Your task to perform on an android device: visit the assistant section in the google photos Image 0: 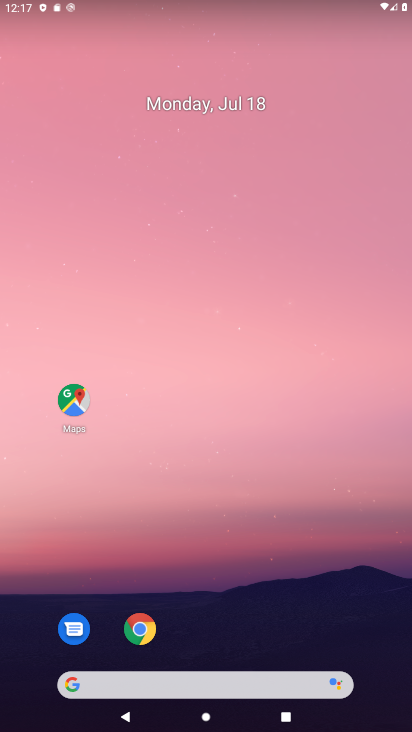
Step 0: press home button
Your task to perform on an android device: visit the assistant section in the google photos Image 1: 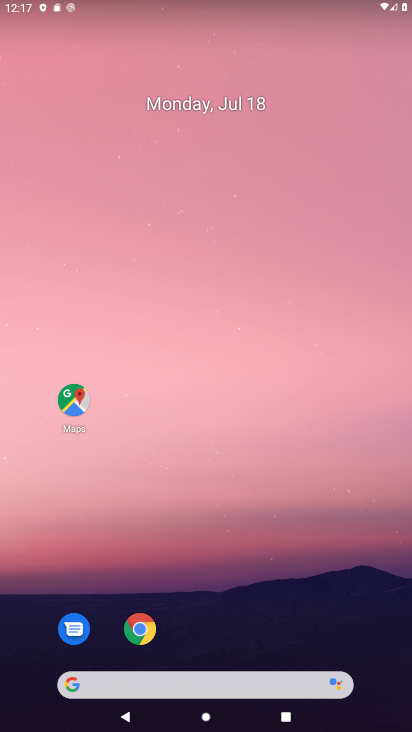
Step 1: drag from (244, 657) to (283, 2)
Your task to perform on an android device: visit the assistant section in the google photos Image 2: 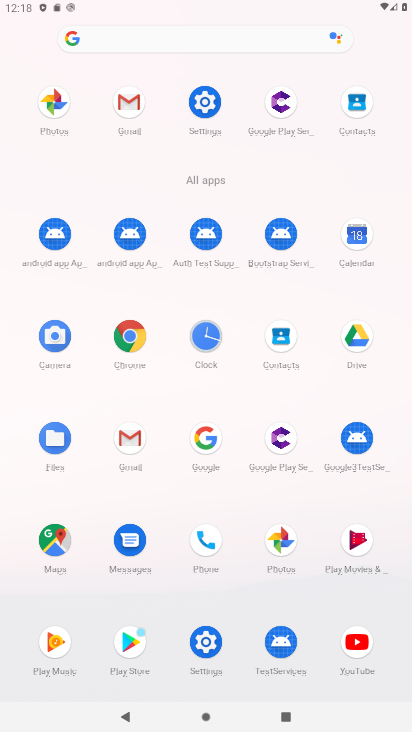
Step 2: click (279, 528)
Your task to perform on an android device: visit the assistant section in the google photos Image 3: 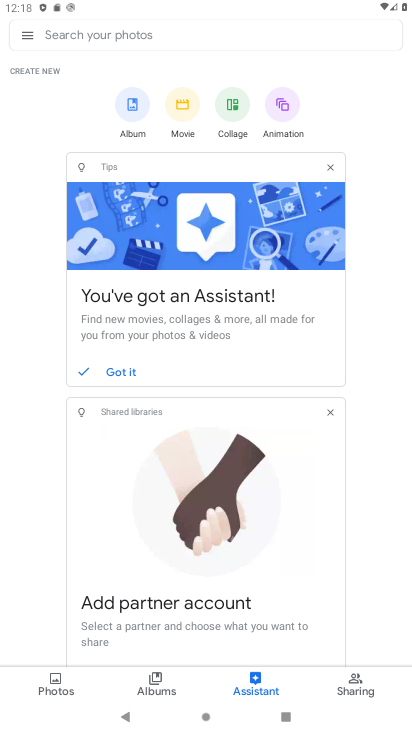
Step 3: task complete